Your task to perform on an android device: Open Google Chrome and click the shortcut for Amazon.com Image 0: 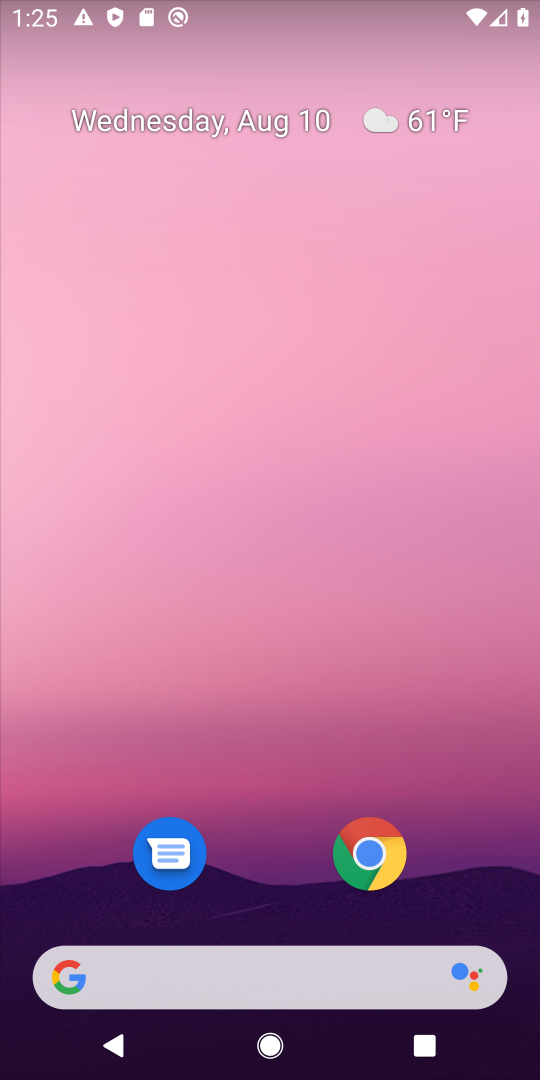
Step 0: click (383, 865)
Your task to perform on an android device: Open Google Chrome and click the shortcut for Amazon.com Image 1: 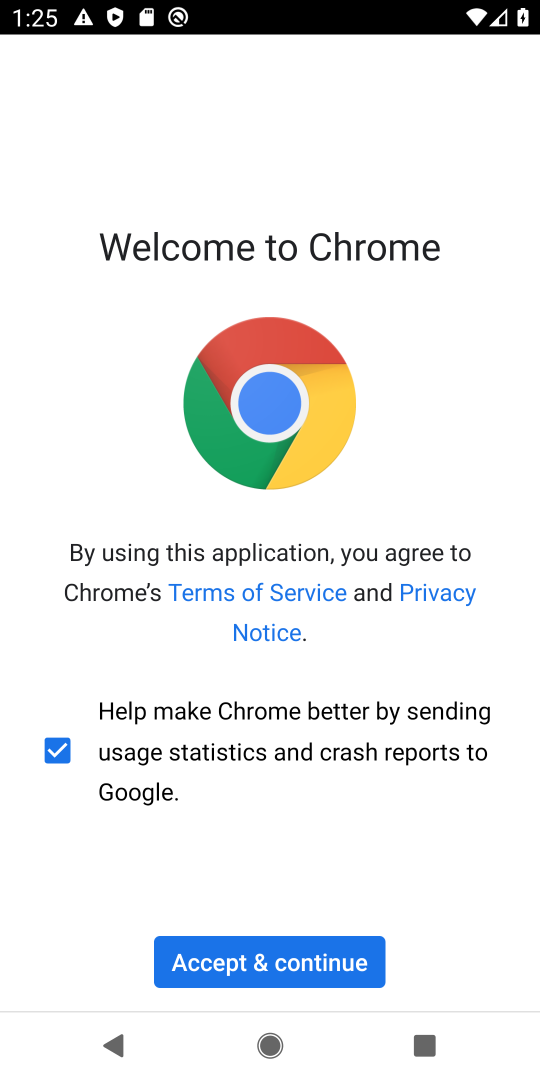
Step 1: click (309, 959)
Your task to perform on an android device: Open Google Chrome and click the shortcut for Amazon.com Image 2: 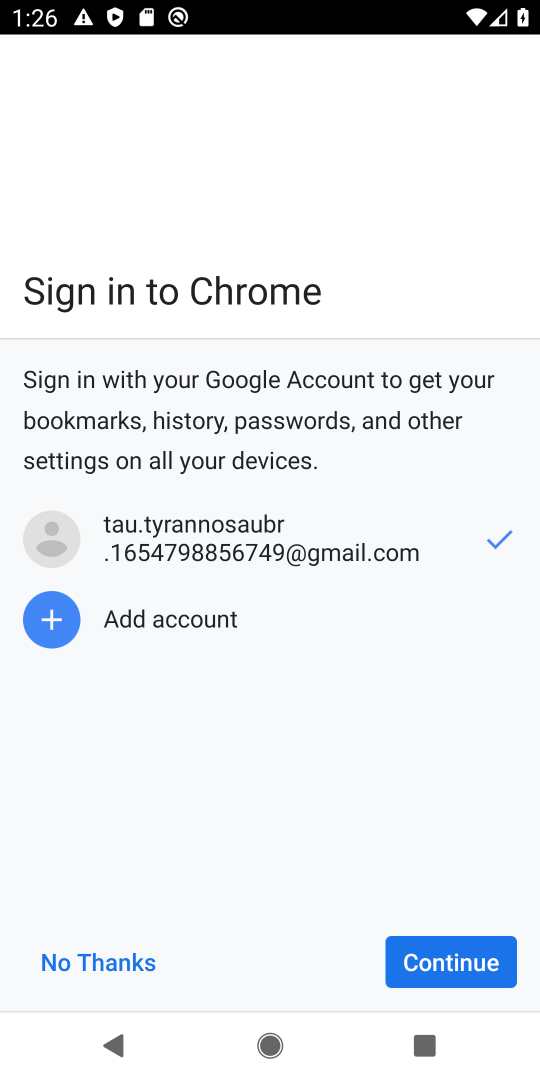
Step 2: click (430, 957)
Your task to perform on an android device: Open Google Chrome and click the shortcut for Amazon.com Image 3: 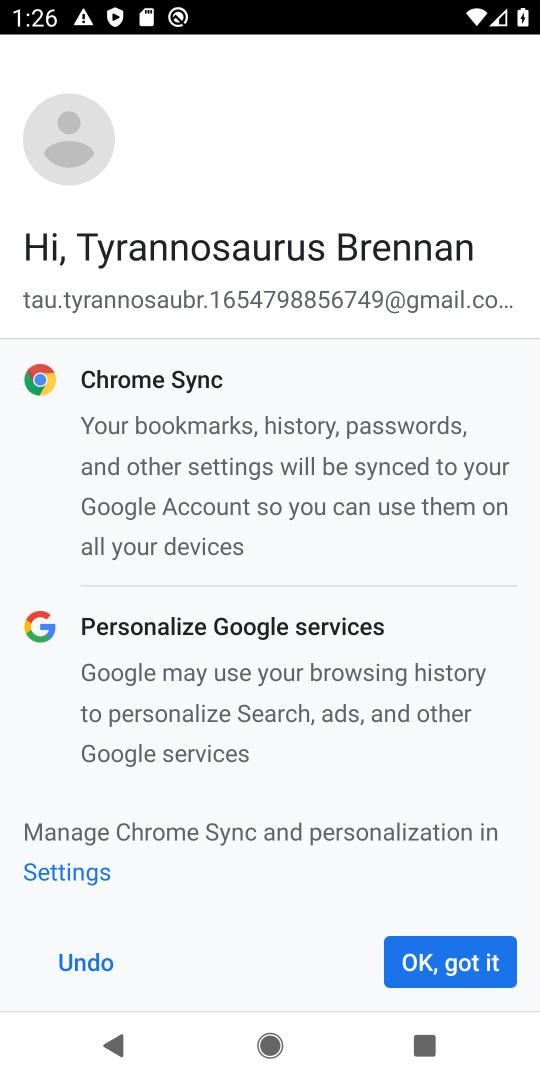
Step 3: click (430, 957)
Your task to perform on an android device: Open Google Chrome and click the shortcut for Amazon.com Image 4: 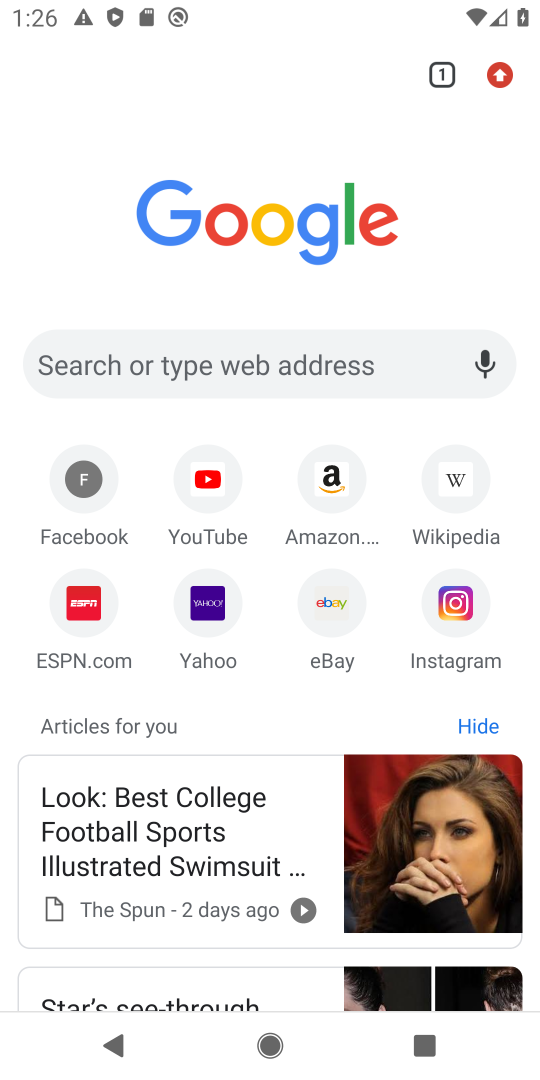
Step 4: type "Amazon.com"
Your task to perform on an android device: Open Google Chrome and click the shortcut for Amazon.com Image 5: 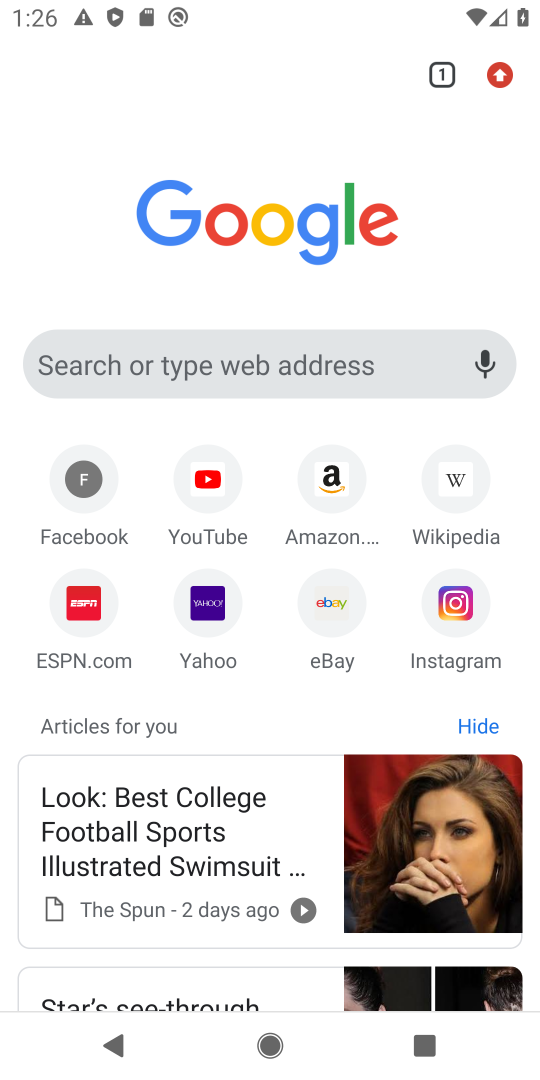
Step 5: type "Amazon.com"
Your task to perform on an android device: Open Google Chrome and click the shortcut for Amazon.com Image 6: 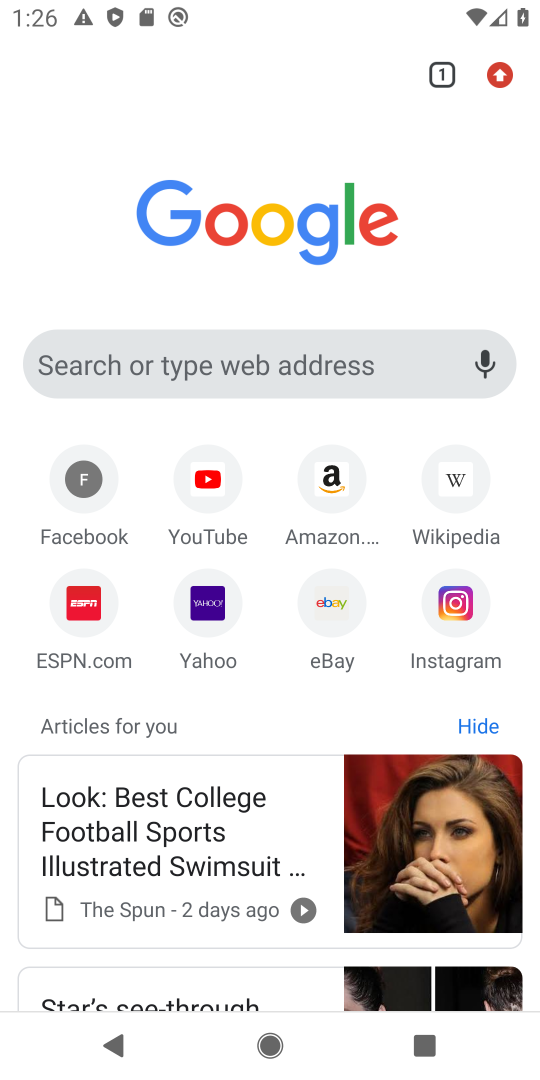
Step 6: click (336, 479)
Your task to perform on an android device: Open Google Chrome and click the shortcut for Amazon.com Image 7: 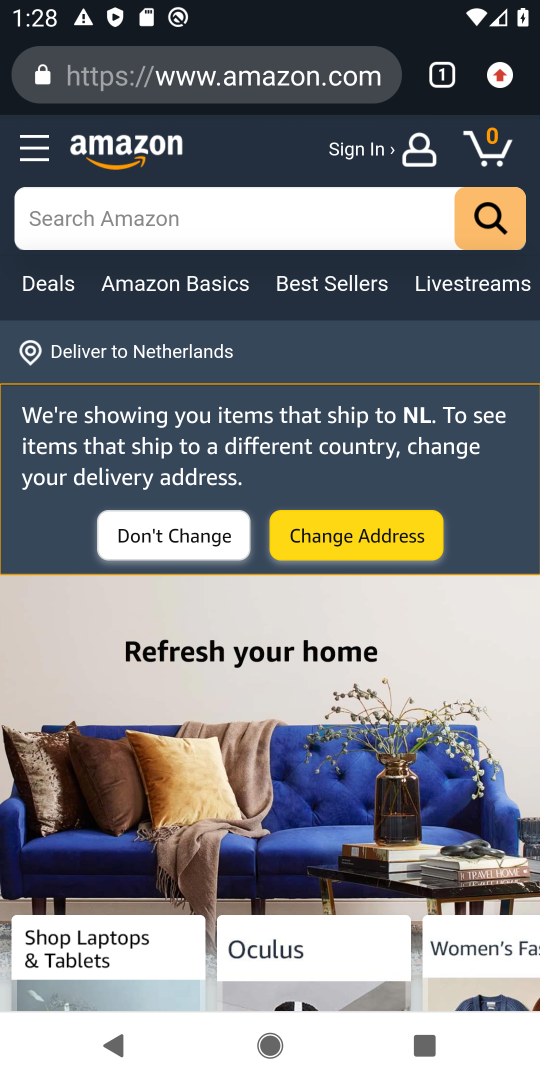
Step 7: task complete